Your task to perform on an android device: Is it going to rain this weekend? Image 0: 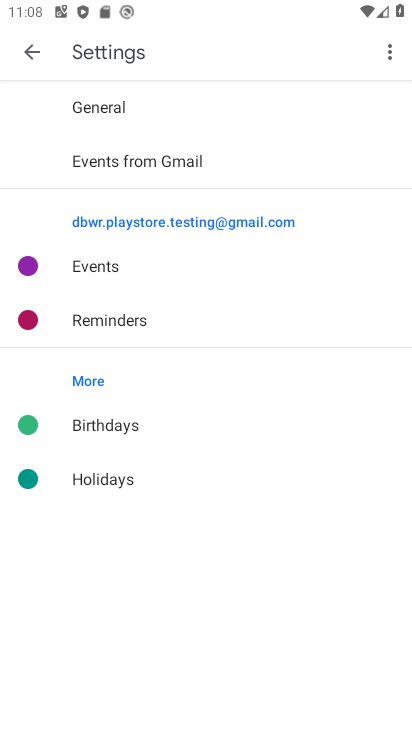
Step 0: press home button
Your task to perform on an android device: Is it going to rain this weekend? Image 1: 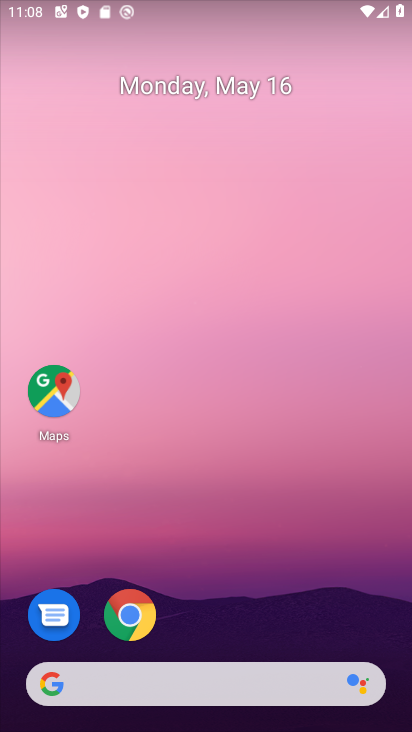
Step 1: drag from (204, 715) to (204, 189)
Your task to perform on an android device: Is it going to rain this weekend? Image 2: 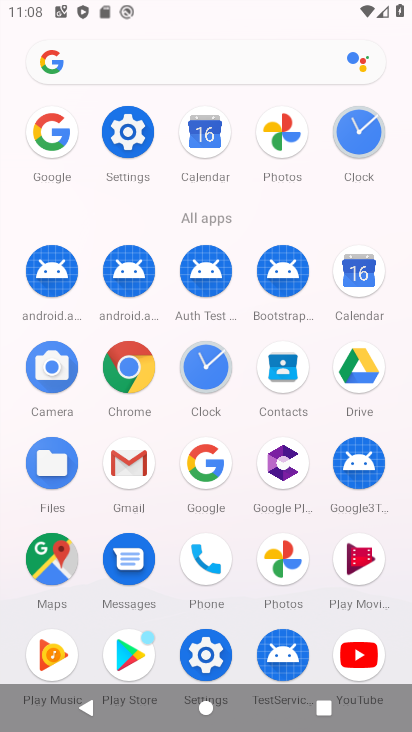
Step 2: click (202, 460)
Your task to perform on an android device: Is it going to rain this weekend? Image 3: 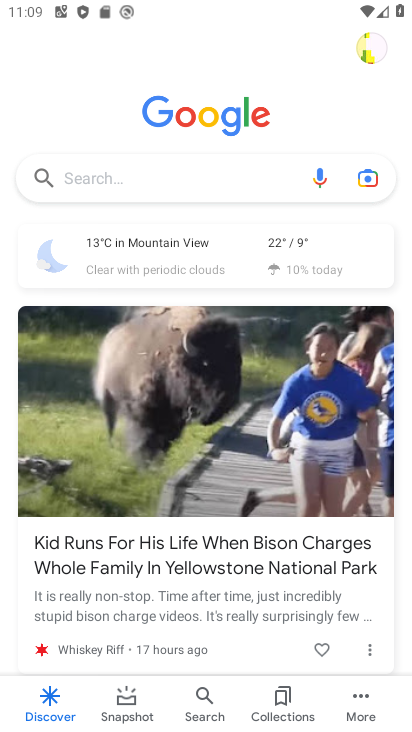
Step 3: click (233, 243)
Your task to perform on an android device: Is it going to rain this weekend? Image 4: 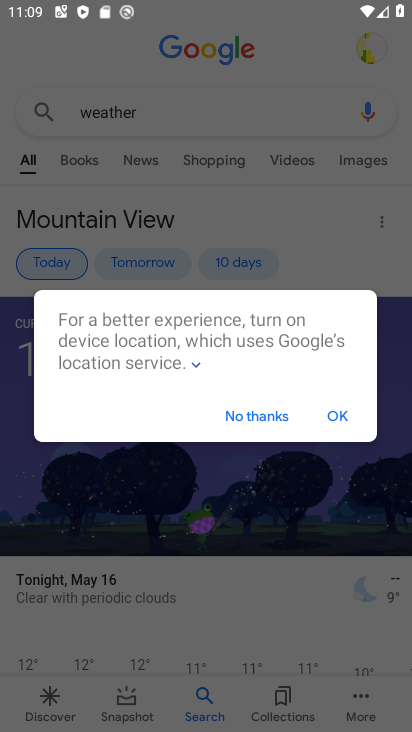
Step 4: click (257, 411)
Your task to perform on an android device: Is it going to rain this weekend? Image 5: 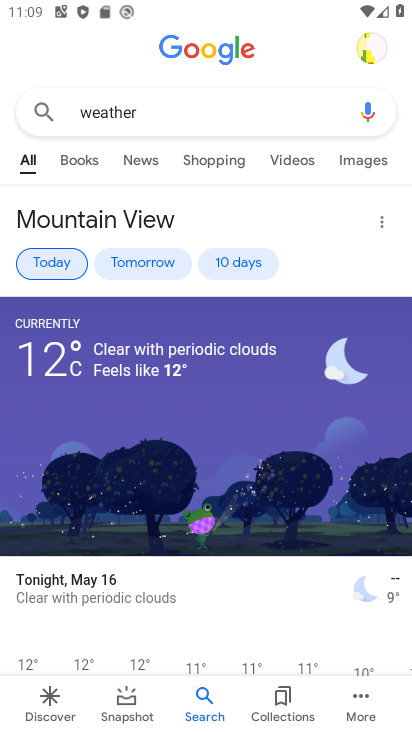
Step 5: click (234, 259)
Your task to perform on an android device: Is it going to rain this weekend? Image 6: 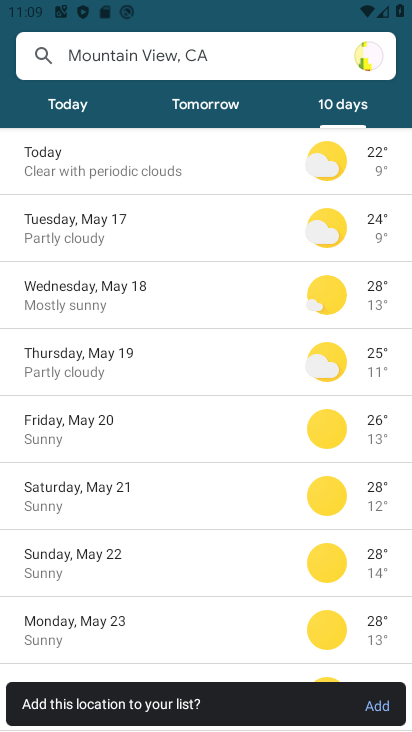
Step 6: click (84, 488)
Your task to perform on an android device: Is it going to rain this weekend? Image 7: 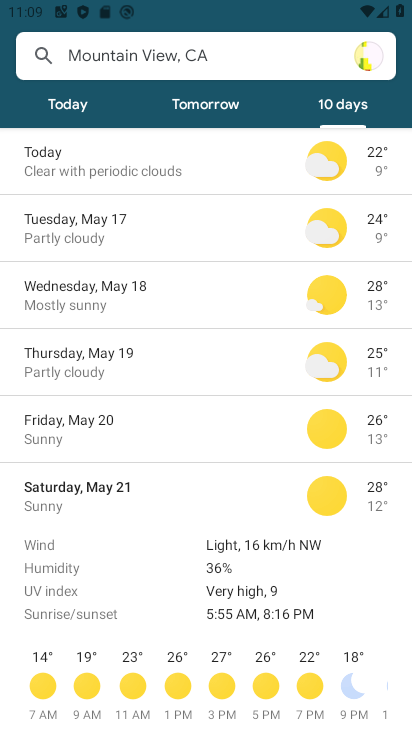
Step 7: task complete